Your task to perform on an android device: change the clock display to analog Image 0: 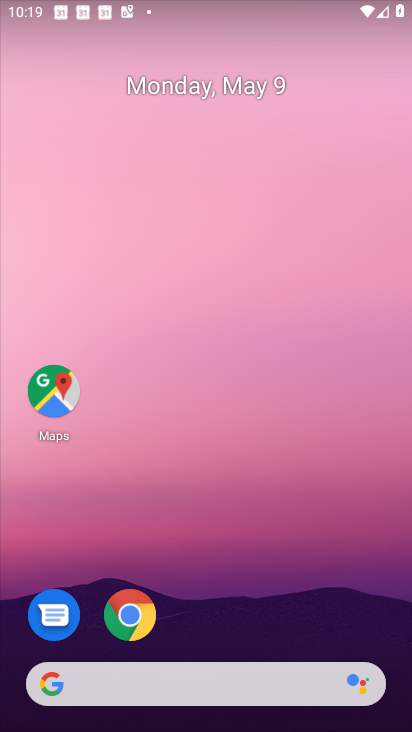
Step 0: drag from (198, 703) to (245, 288)
Your task to perform on an android device: change the clock display to analog Image 1: 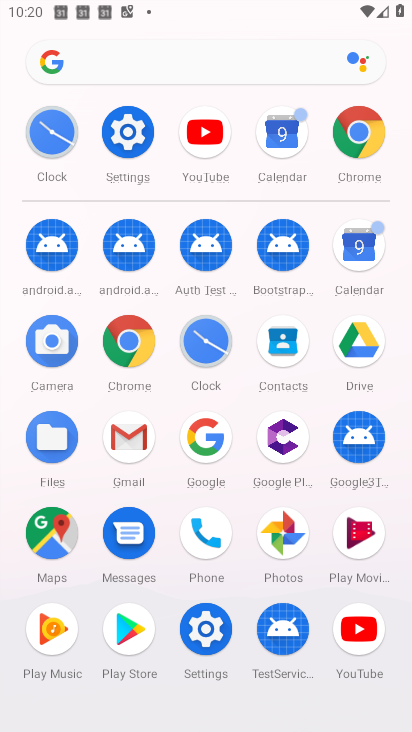
Step 1: click (195, 350)
Your task to perform on an android device: change the clock display to analog Image 2: 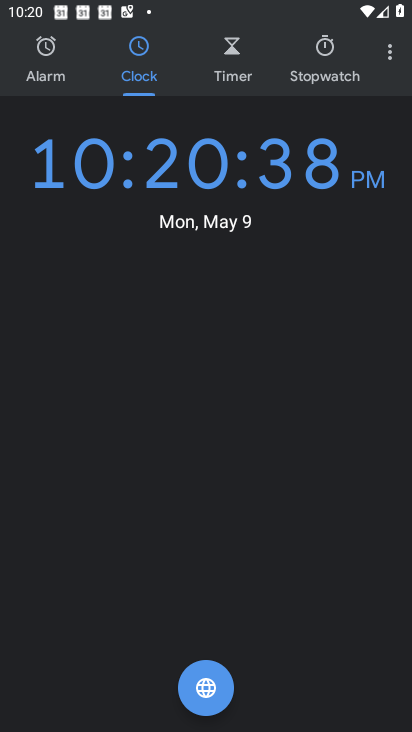
Step 2: click (384, 48)
Your task to perform on an android device: change the clock display to analog Image 3: 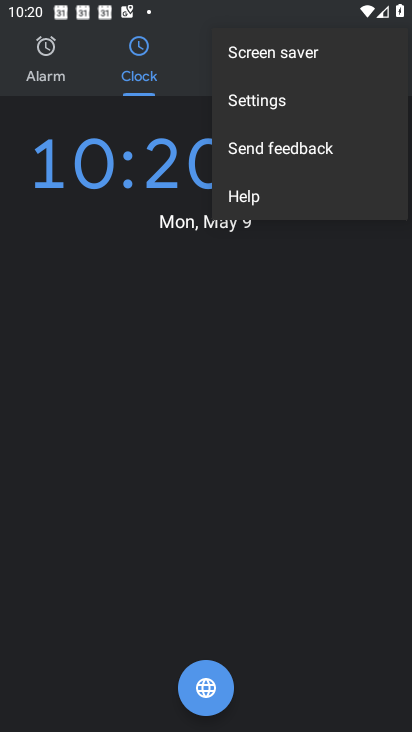
Step 3: click (233, 105)
Your task to perform on an android device: change the clock display to analog Image 4: 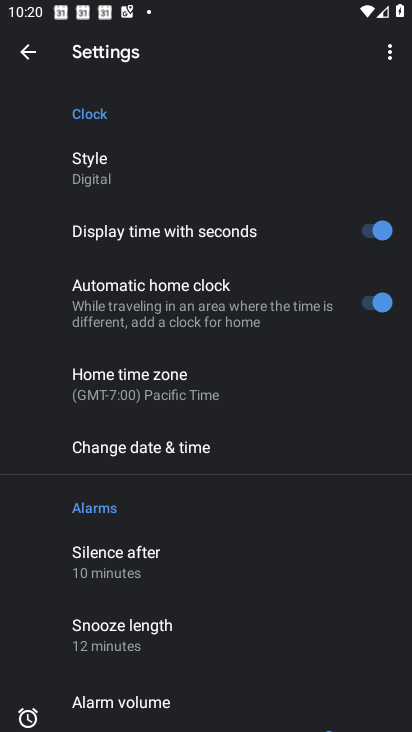
Step 4: click (97, 171)
Your task to perform on an android device: change the clock display to analog Image 5: 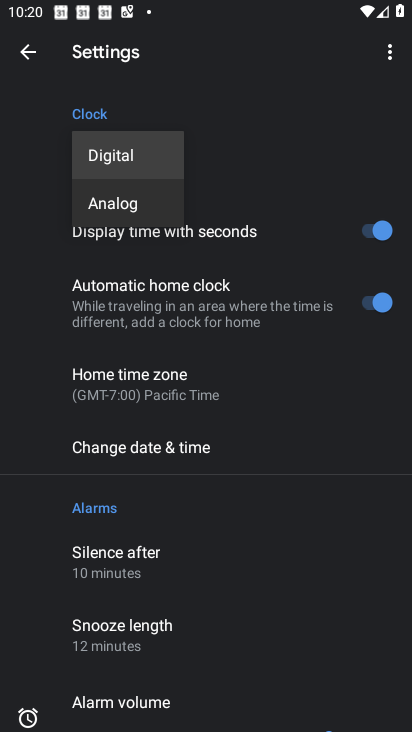
Step 5: click (128, 208)
Your task to perform on an android device: change the clock display to analog Image 6: 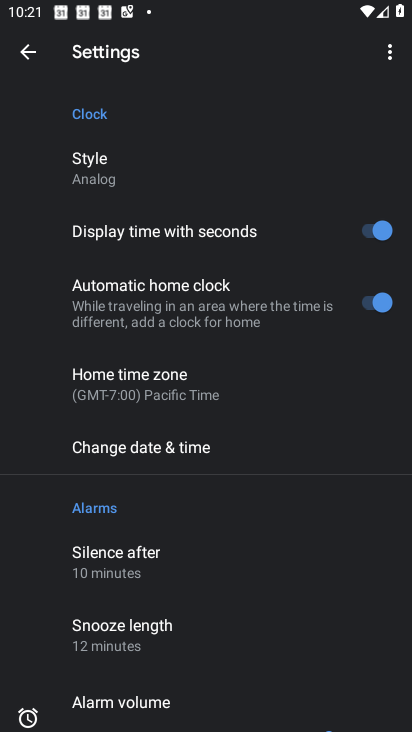
Step 6: task complete